Your task to perform on an android device: delete the emails in spam in the gmail app Image 0: 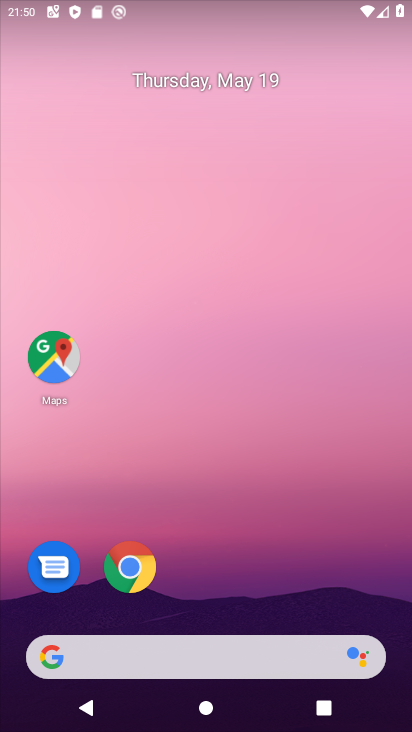
Step 0: press home button
Your task to perform on an android device: delete the emails in spam in the gmail app Image 1: 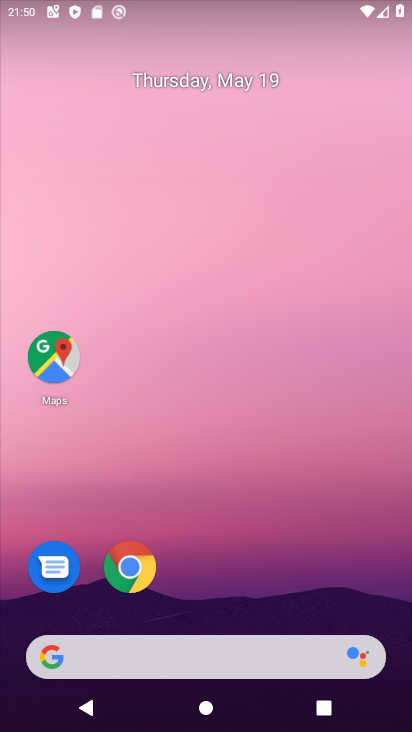
Step 1: drag from (179, 604) to (217, 120)
Your task to perform on an android device: delete the emails in spam in the gmail app Image 2: 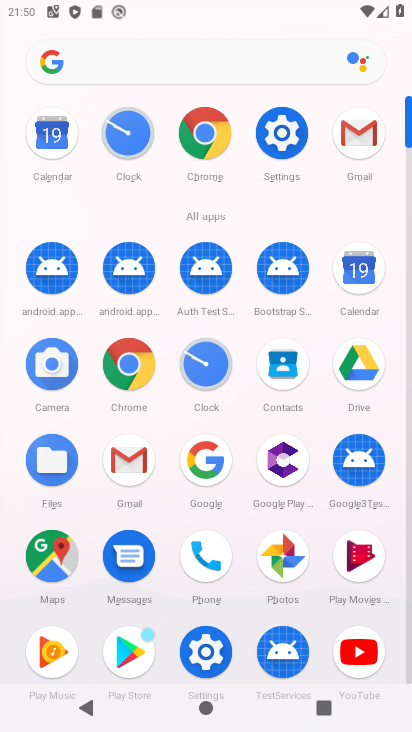
Step 2: click (126, 455)
Your task to perform on an android device: delete the emails in spam in the gmail app Image 3: 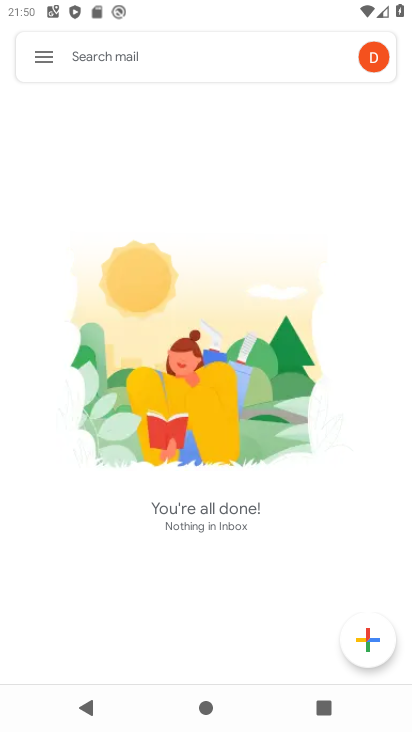
Step 3: click (42, 53)
Your task to perform on an android device: delete the emails in spam in the gmail app Image 4: 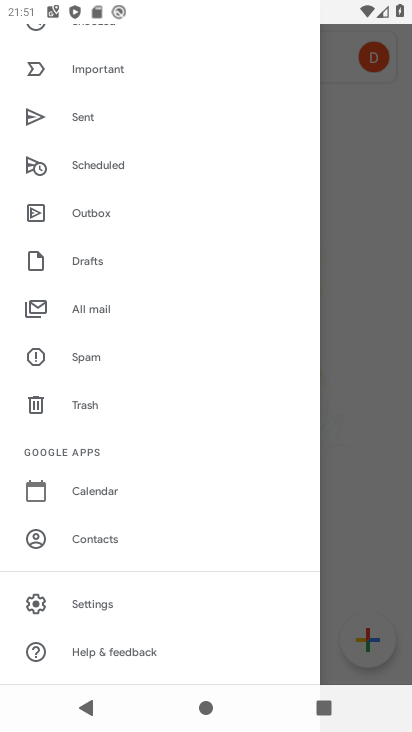
Step 4: click (82, 352)
Your task to perform on an android device: delete the emails in spam in the gmail app Image 5: 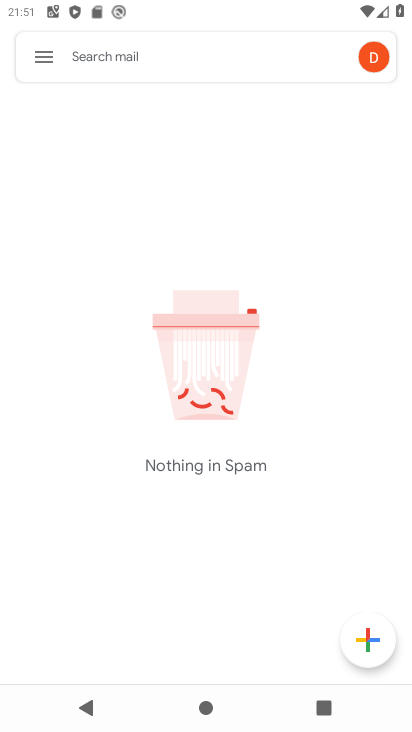
Step 5: task complete